Your task to perform on an android device: change timer sound Image 0: 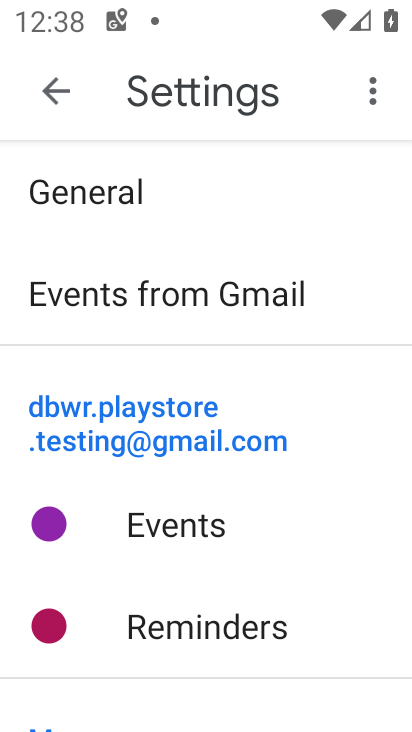
Step 0: press back button
Your task to perform on an android device: change timer sound Image 1: 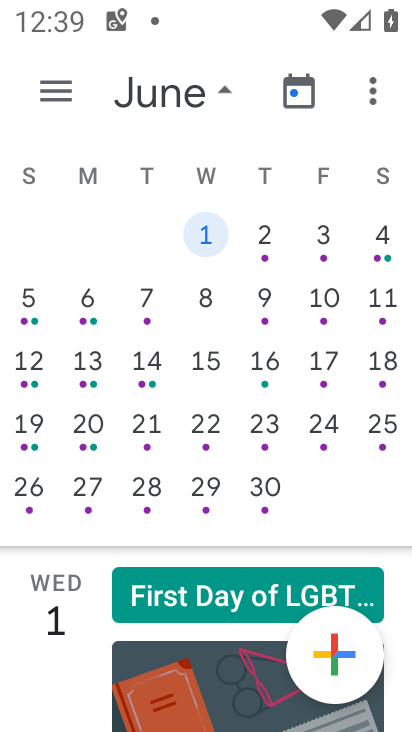
Step 1: press back button
Your task to perform on an android device: change timer sound Image 2: 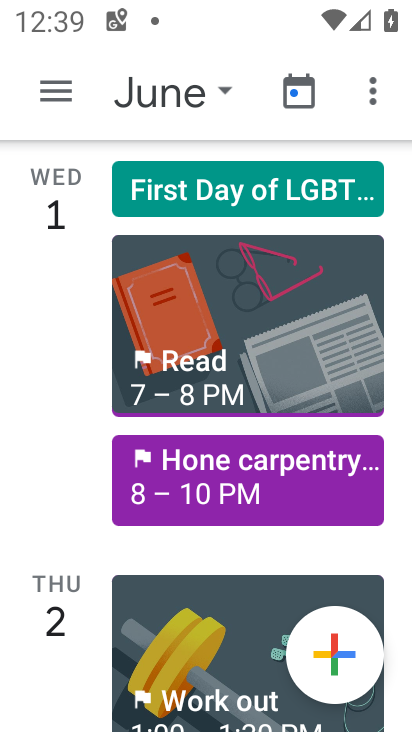
Step 2: press back button
Your task to perform on an android device: change timer sound Image 3: 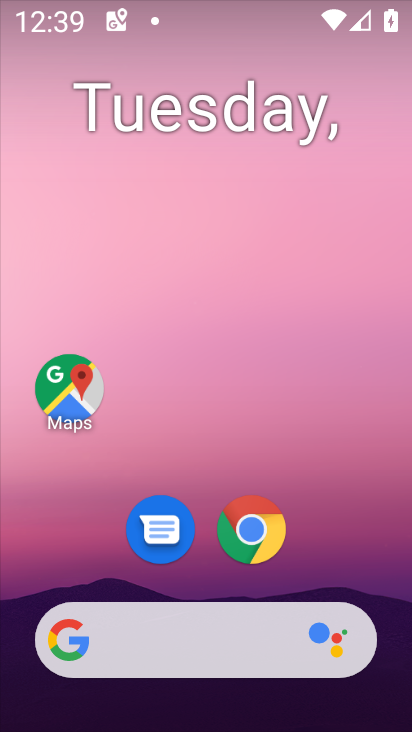
Step 3: drag from (256, 431) to (243, 19)
Your task to perform on an android device: change timer sound Image 4: 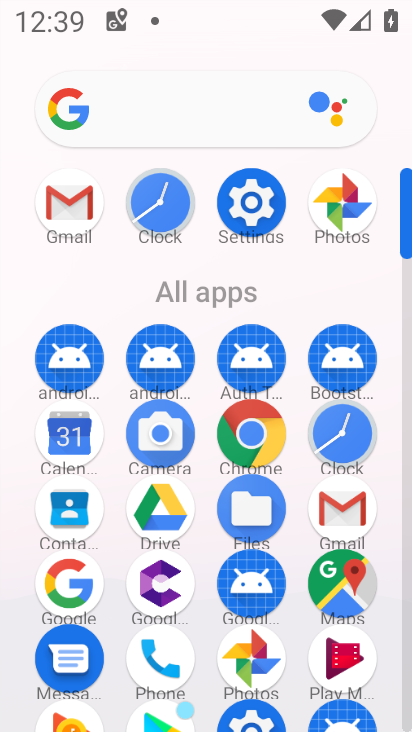
Step 4: click (325, 435)
Your task to perform on an android device: change timer sound Image 5: 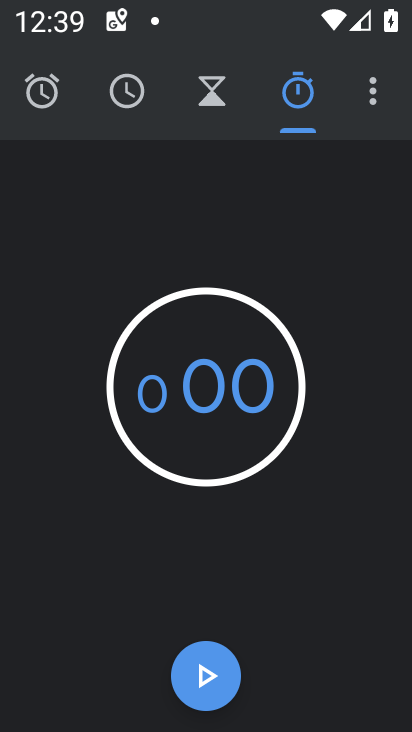
Step 5: click (367, 84)
Your task to perform on an android device: change timer sound Image 6: 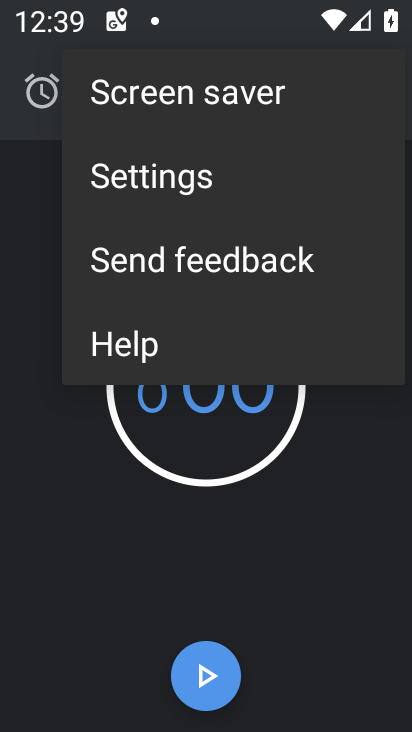
Step 6: click (113, 186)
Your task to perform on an android device: change timer sound Image 7: 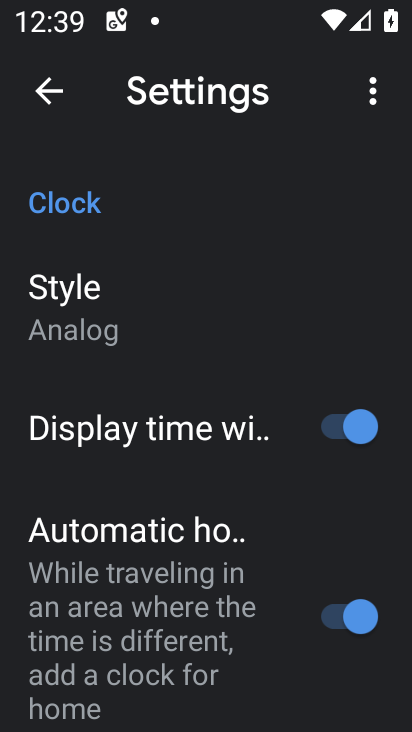
Step 7: drag from (180, 646) to (176, 122)
Your task to perform on an android device: change timer sound Image 8: 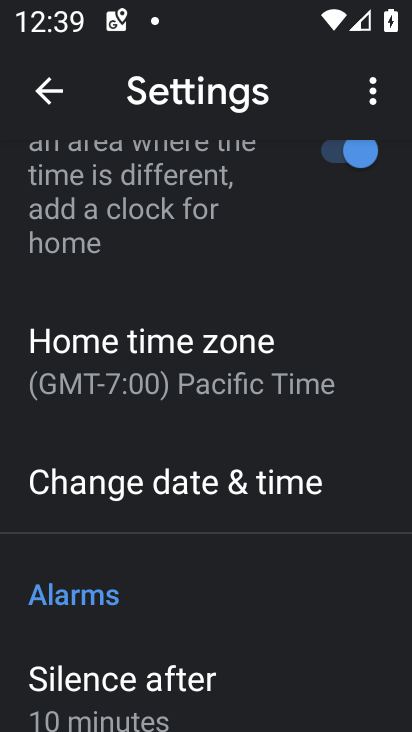
Step 8: drag from (139, 604) to (236, 50)
Your task to perform on an android device: change timer sound Image 9: 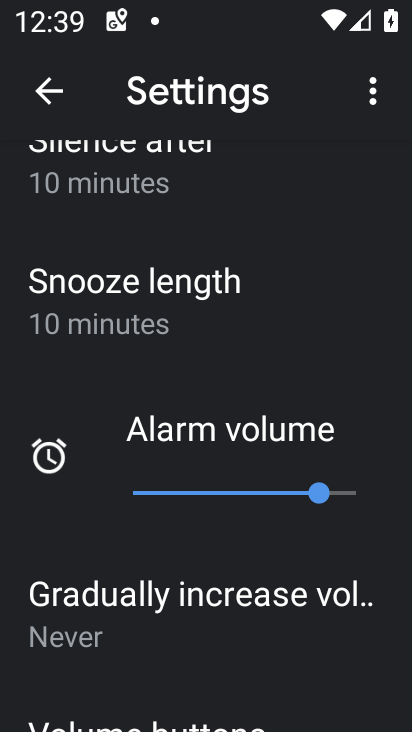
Step 9: drag from (183, 618) to (207, 156)
Your task to perform on an android device: change timer sound Image 10: 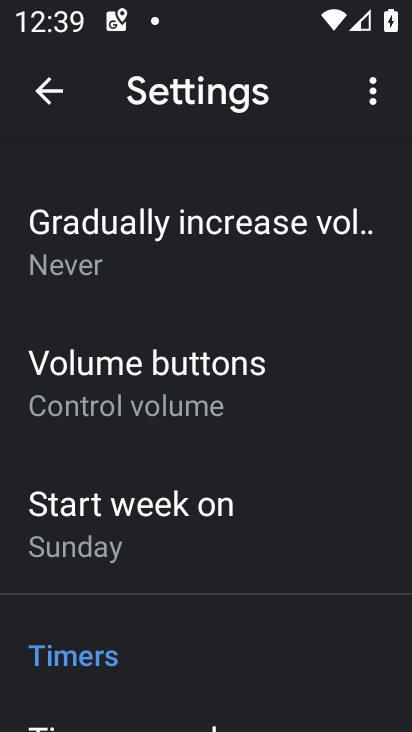
Step 10: drag from (176, 614) to (175, 199)
Your task to perform on an android device: change timer sound Image 11: 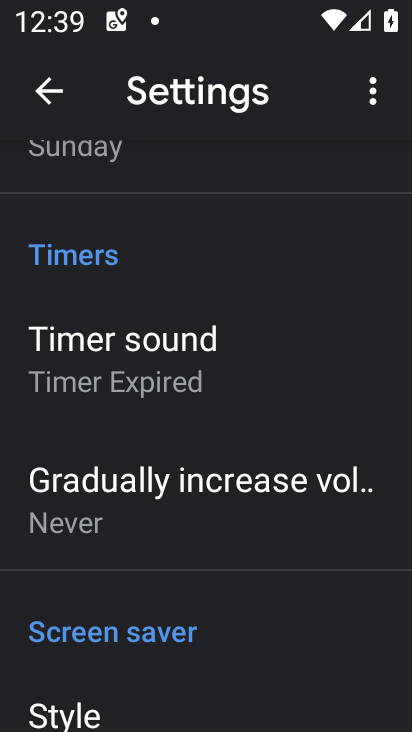
Step 11: click (110, 345)
Your task to perform on an android device: change timer sound Image 12: 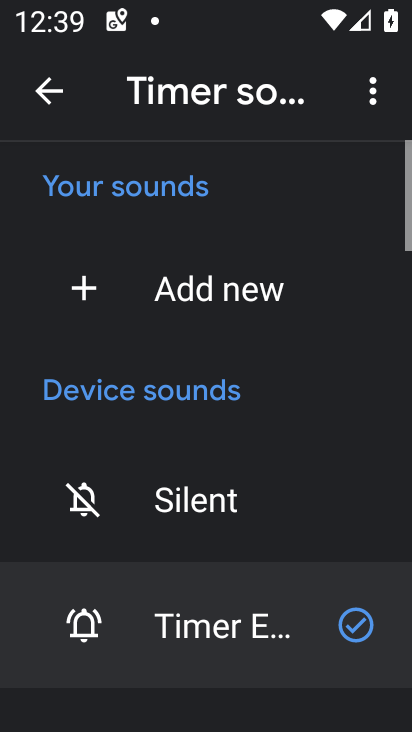
Step 12: drag from (171, 537) to (217, 205)
Your task to perform on an android device: change timer sound Image 13: 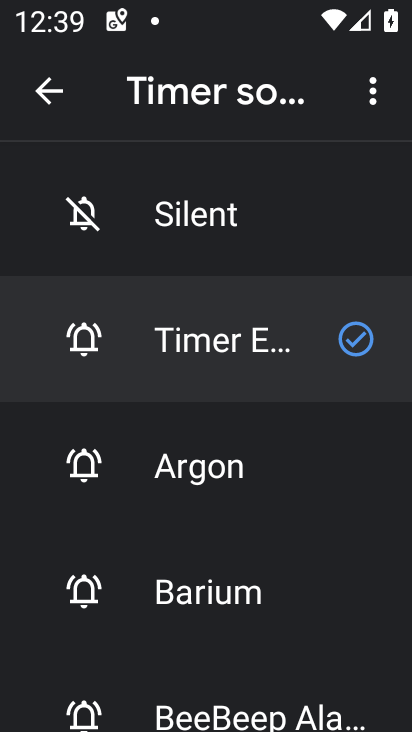
Step 13: click (205, 457)
Your task to perform on an android device: change timer sound Image 14: 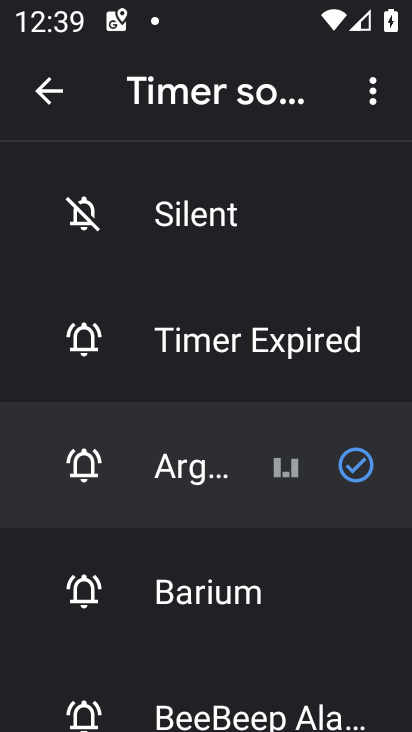
Step 14: task complete